Your task to perform on an android device: Go to privacy settings Image 0: 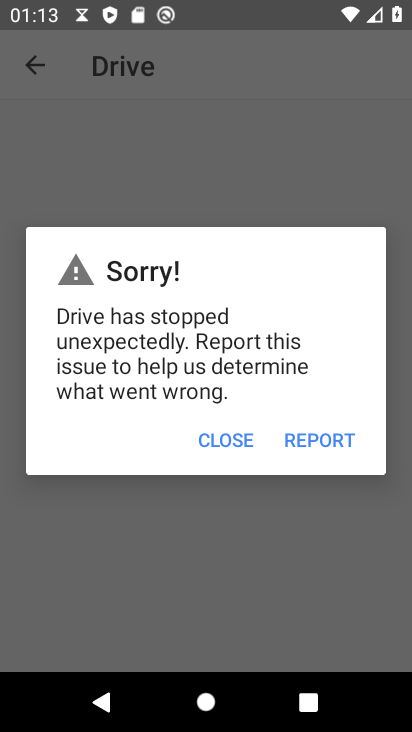
Step 0: press home button
Your task to perform on an android device: Go to privacy settings Image 1: 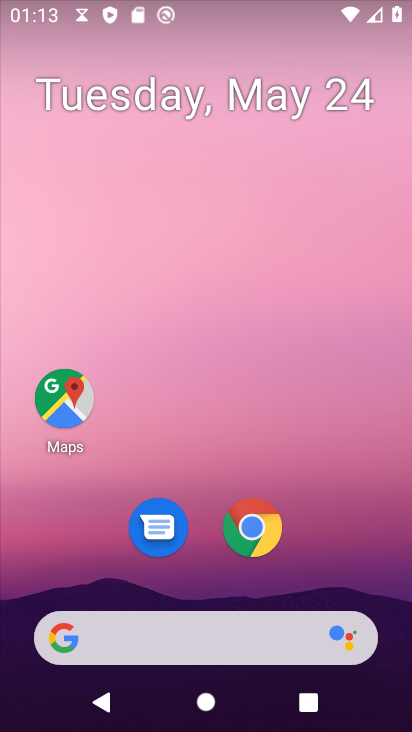
Step 1: drag from (187, 634) to (403, 134)
Your task to perform on an android device: Go to privacy settings Image 2: 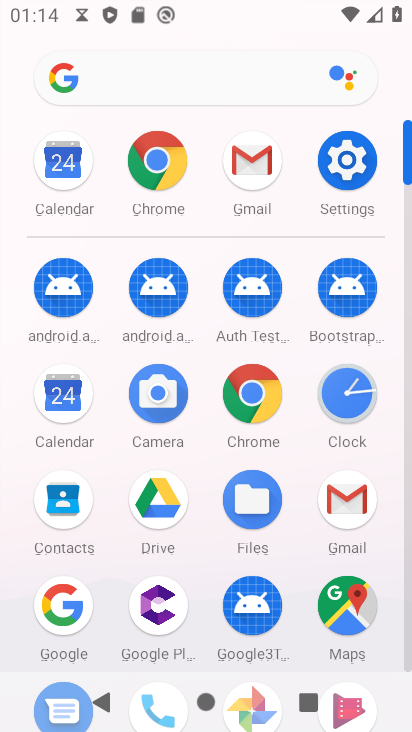
Step 2: click (345, 166)
Your task to perform on an android device: Go to privacy settings Image 3: 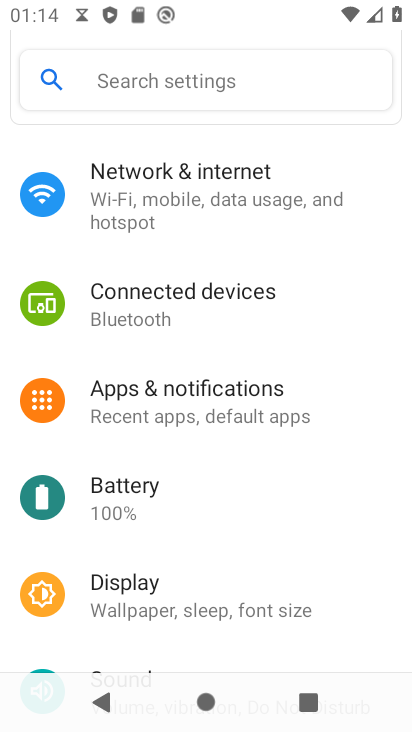
Step 3: drag from (289, 503) to (404, 108)
Your task to perform on an android device: Go to privacy settings Image 4: 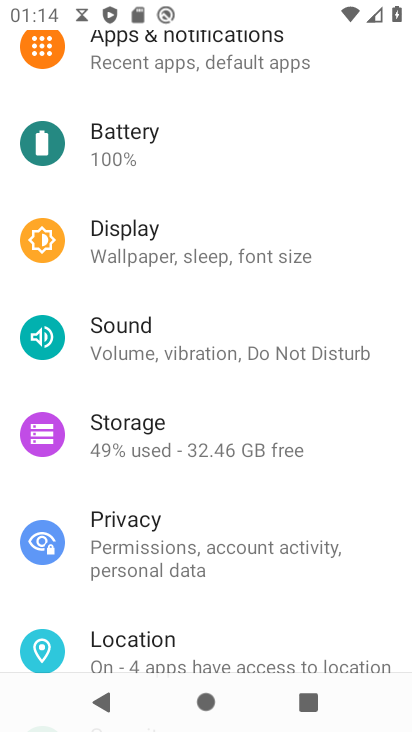
Step 4: click (135, 544)
Your task to perform on an android device: Go to privacy settings Image 5: 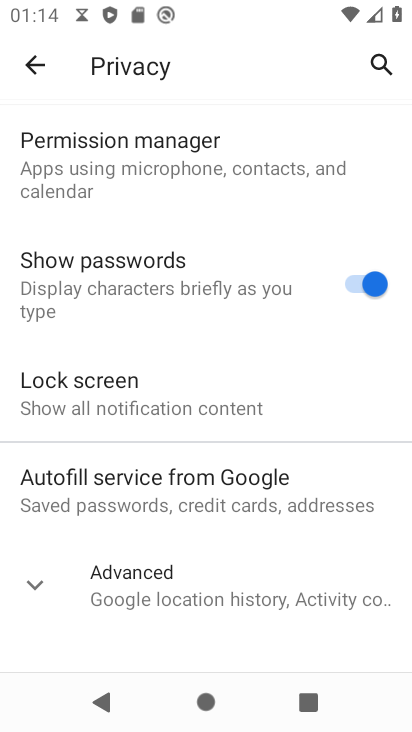
Step 5: task complete